Your task to perform on an android device: Open Google Image 0: 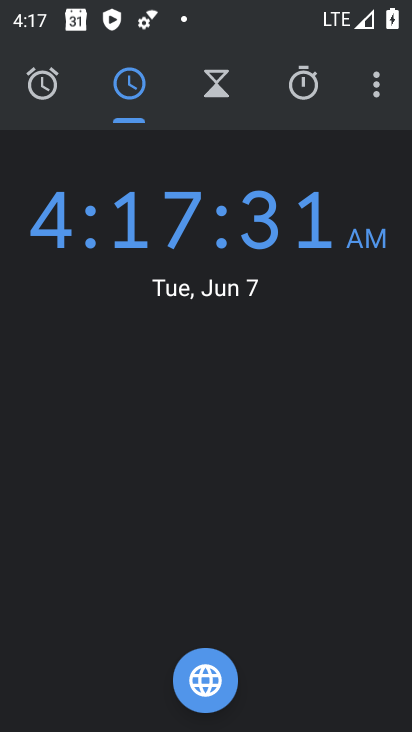
Step 0: press home button
Your task to perform on an android device: Open Google Image 1: 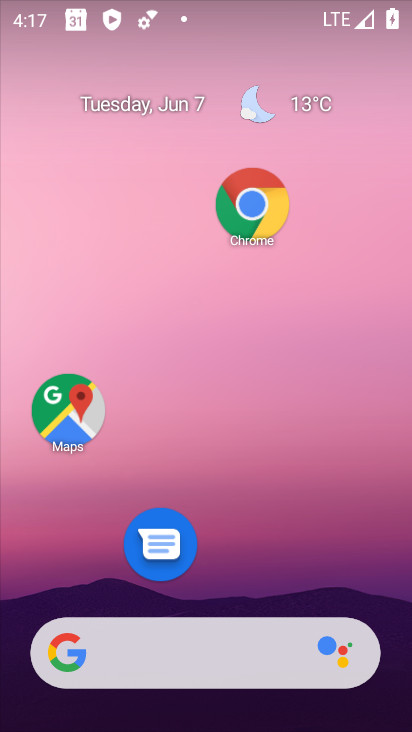
Step 1: drag from (218, 592) to (244, 99)
Your task to perform on an android device: Open Google Image 2: 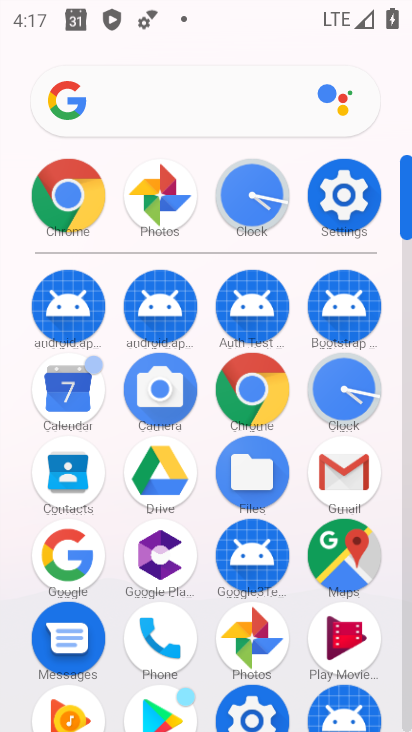
Step 2: click (65, 546)
Your task to perform on an android device: Open Google Image 3: 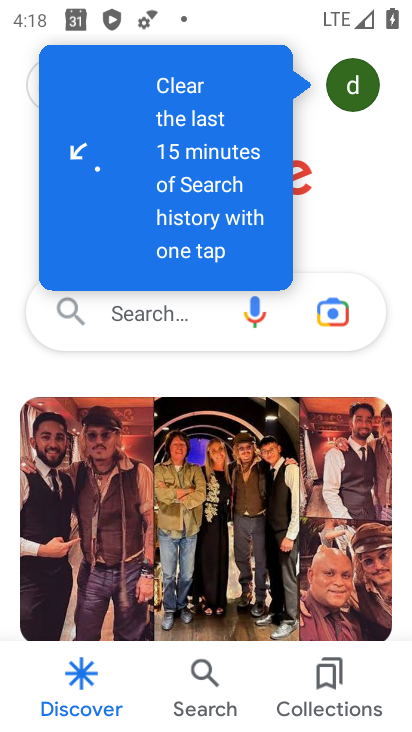
Step 3: task complete